Your task to perform on an android device: Open notification settings Image 0: 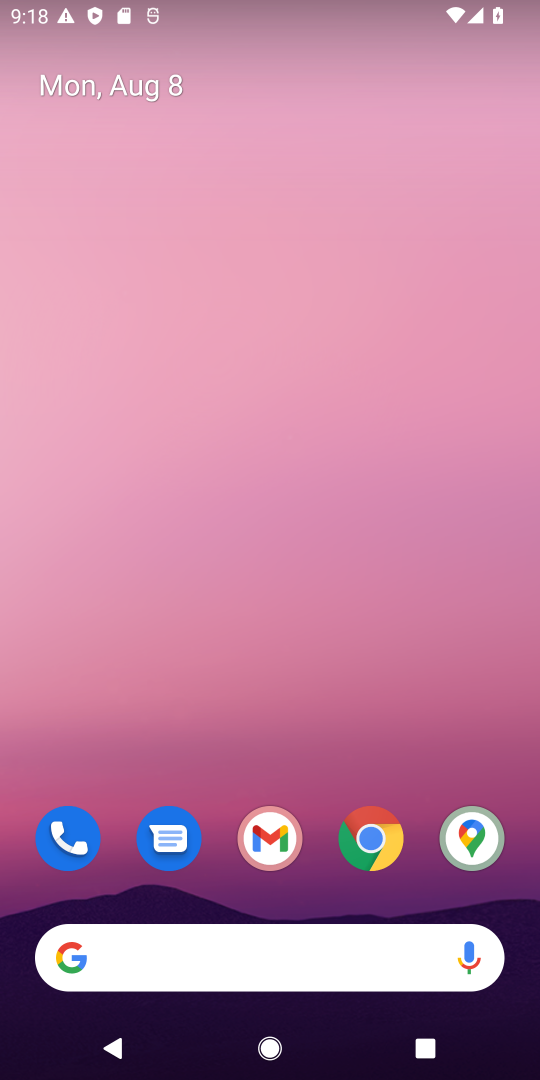
Step 0: press home button
Your task to perform on an android device: Open notification settings Image 1: 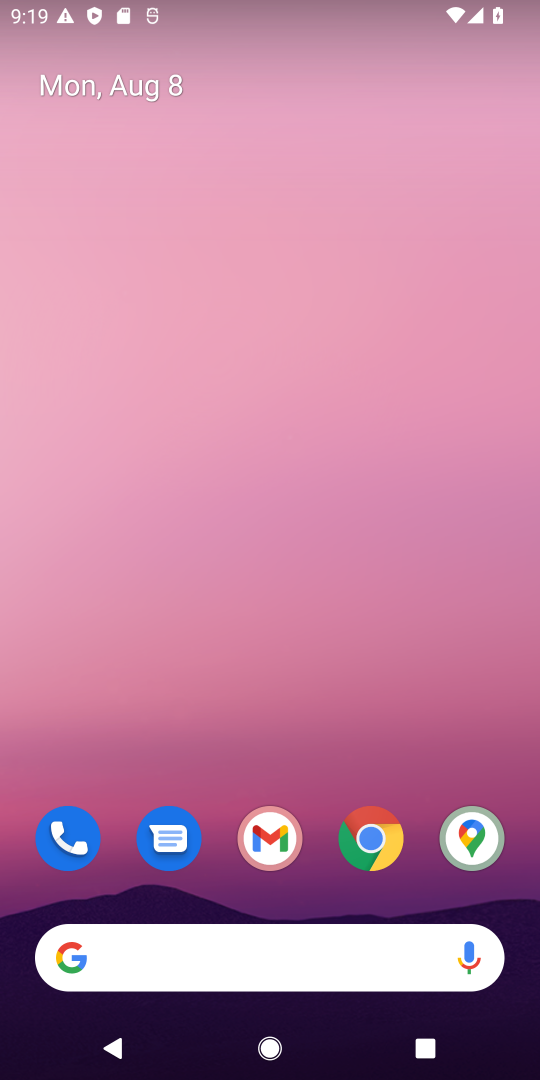
Step 1: drag from (341, 908) to (386, 296)
Your task to perform on an android device: Open notification settings Image 2: 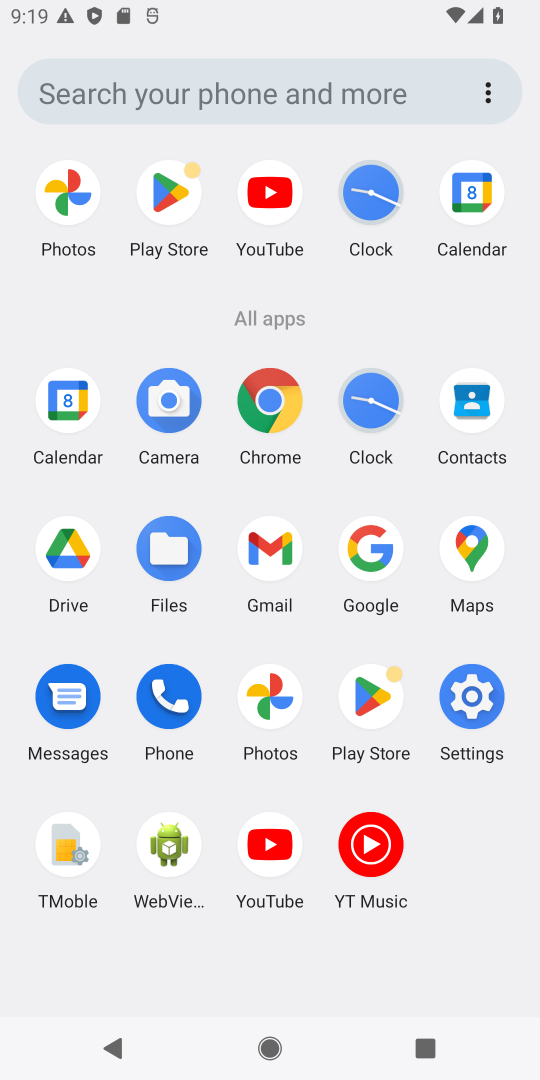
Step 2: click (468, 702)
Your task to perform on an android device: Open notification settings Image 3: 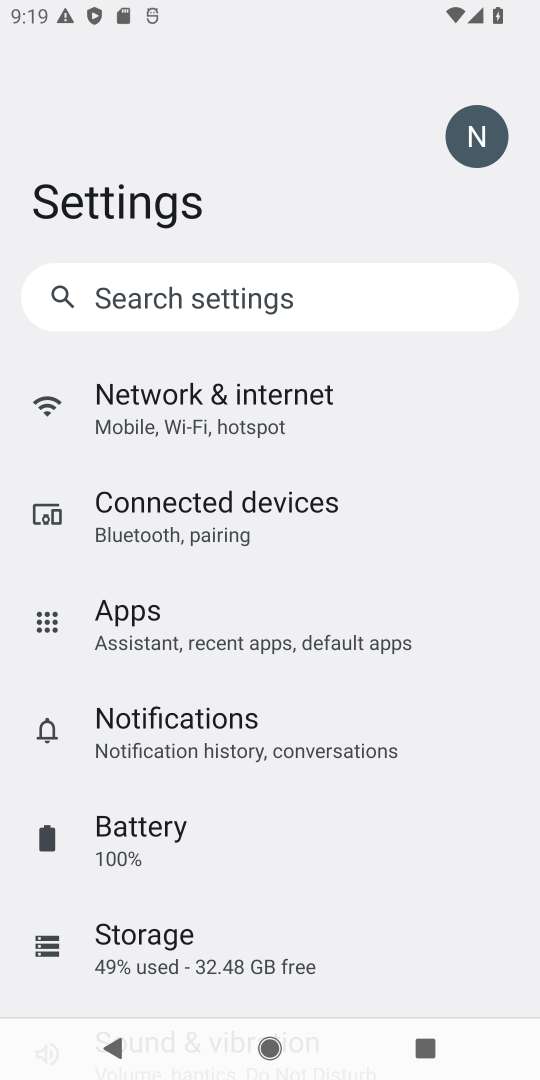
Step 3: click (163, 721)
Your task to perform on an android device: Open notification settings Image 4: 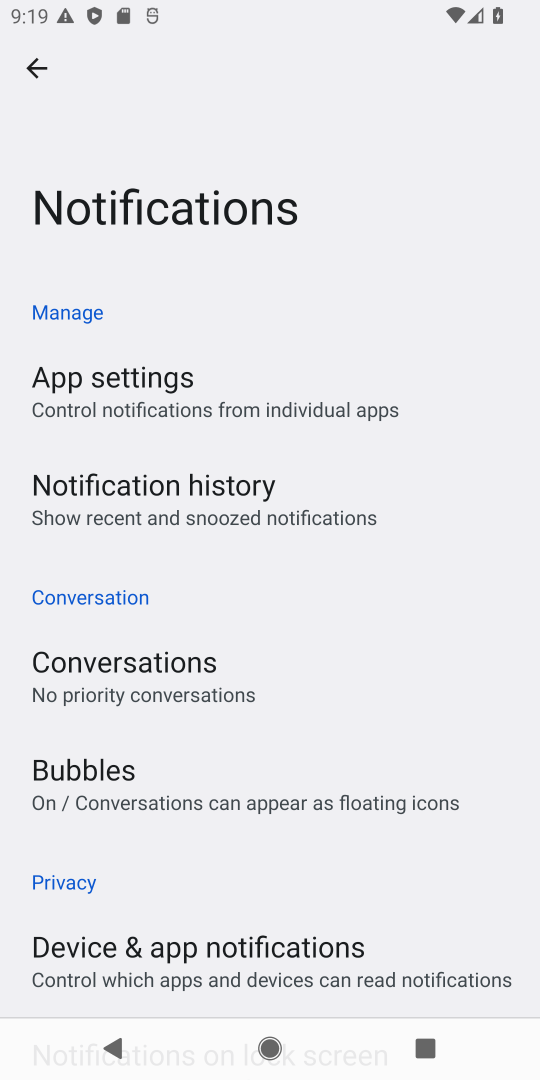
Step 4: task complete